Your task to perform on an android device: Go to notification settings Image 0: 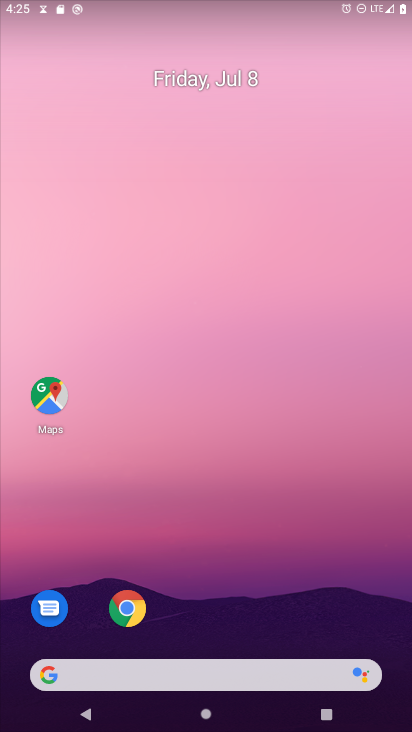
Step 0: drag from (162, 689) to (176, 58)
Your task to perform on an android device: Go to notification settings Image 1: 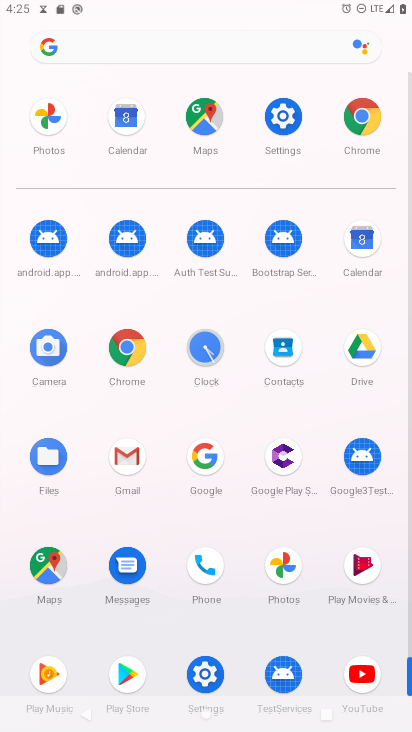
Step 1: click (288, 124)
Your task to perform on an android device: Go to notification settings Image 2: 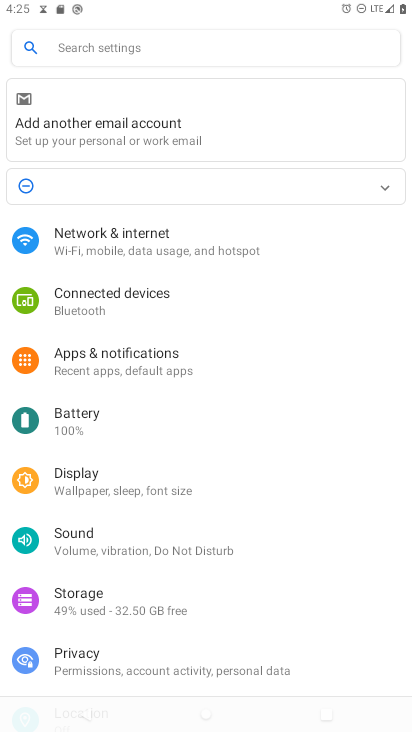
Step 2: click (89, 359)
Your task to perform on an android device: Go to notification settings Image 3: 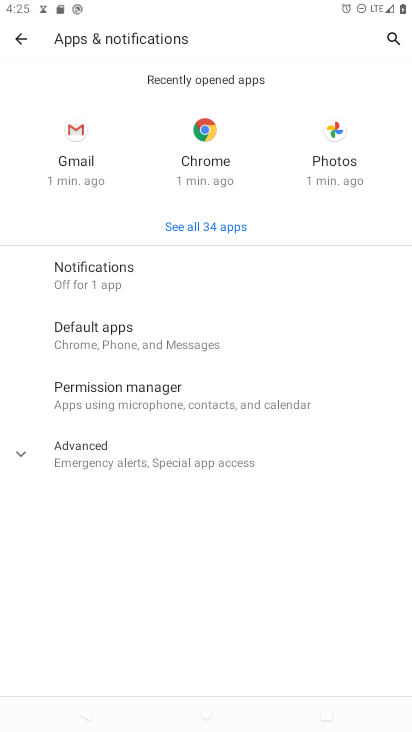
Step 3: click (209, 280)
Your task to perform on an android device: Go to notification settings Image 4: 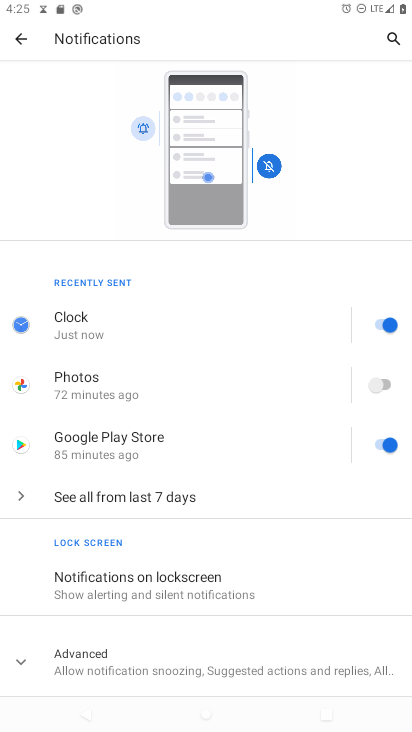
Step 4: task complete